Your task to perform on an android device: turn off smart reply in the gmail app Image 0: 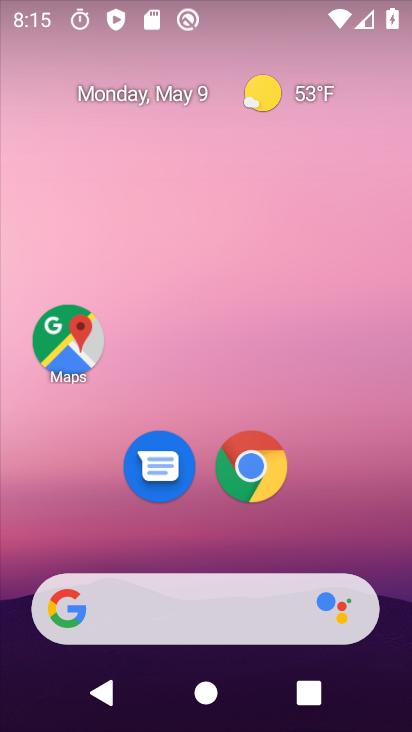
Step 0: drag from (308, 530) to (239, 69)
Your task to perform on an android device: turn off smart reply in the gmail app Image 1: 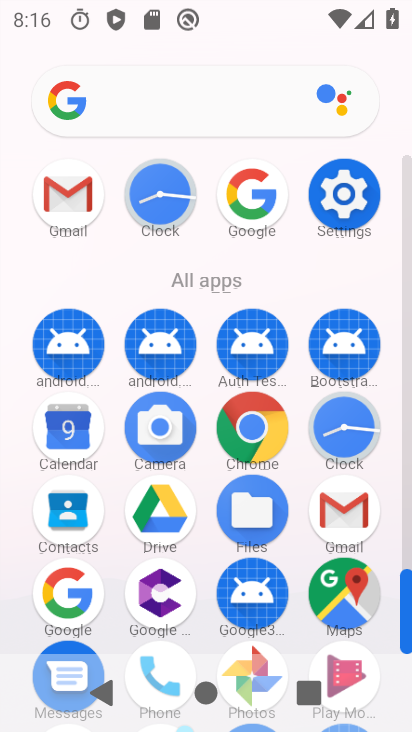
Step 1: click (67, 199)
Your task to perform on an android device: turn off smart reply in the gmail app Image 2: 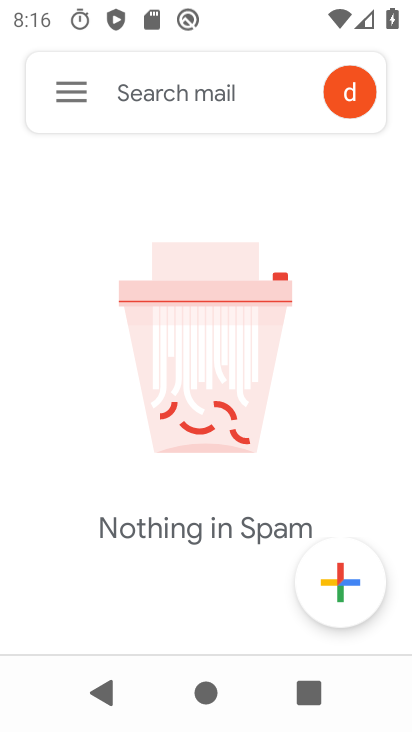
Step 2: click (85, 85)
Your task to perform on an android device: turn off smart reply in the gmail app Image 3: 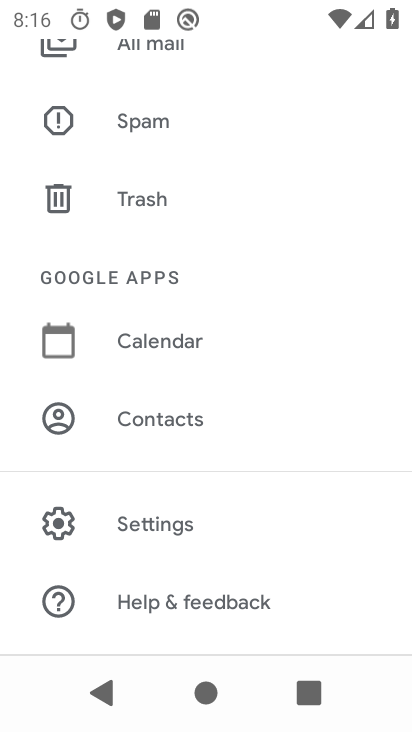
Step 3: click (190, 525)
Your task to perform on an android device: turn off smart reply in the gmail app Image 4: 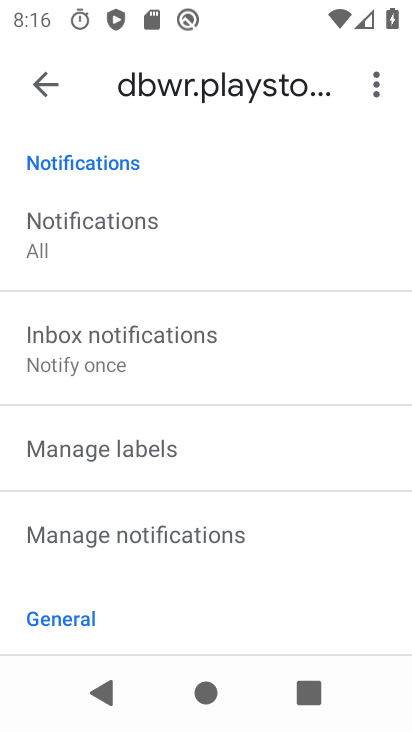
Step 4: drag from (149, 532) to (183, 447)
Your task to perform on an android device: turn off smart reply in the gmail app Image 5: 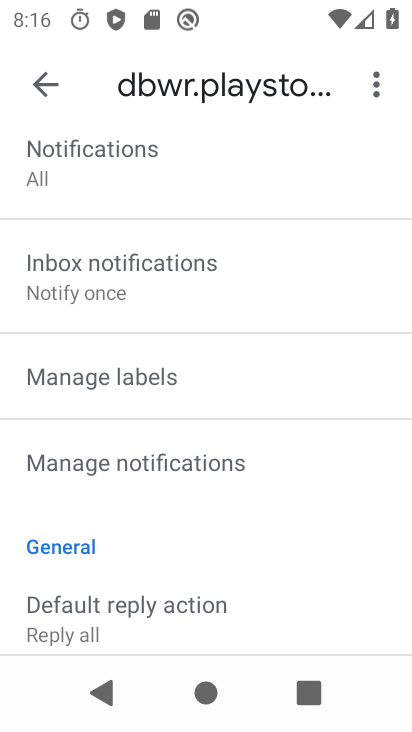
Step 5: drag from (138, 559) to (183, 418)
Your task to perform on an android device: turn off smart reply in the gmail app Image 6: 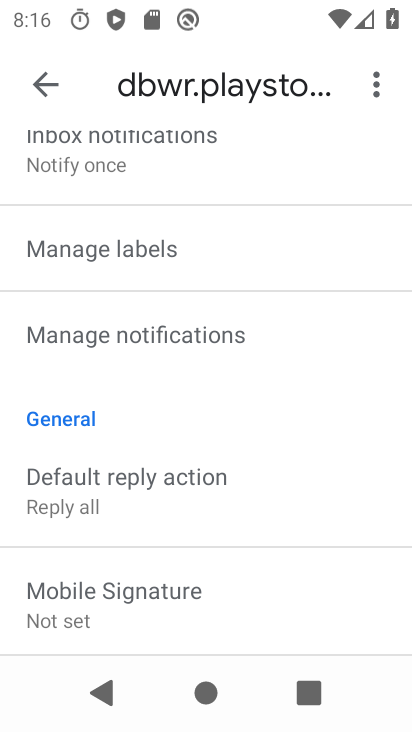
Step 6: drag from (146, 549) to (243, 413)
Your task to perform on an android device: turn off smart reply in the gmail app Image 7: 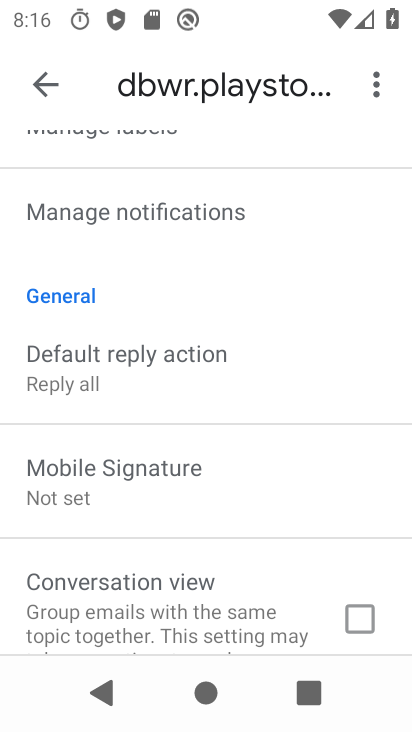
Step 7: drag from (134, 550) to (246, 386)
Your task to perform on an android device: turn off smart reply in the gmail app Image 8: 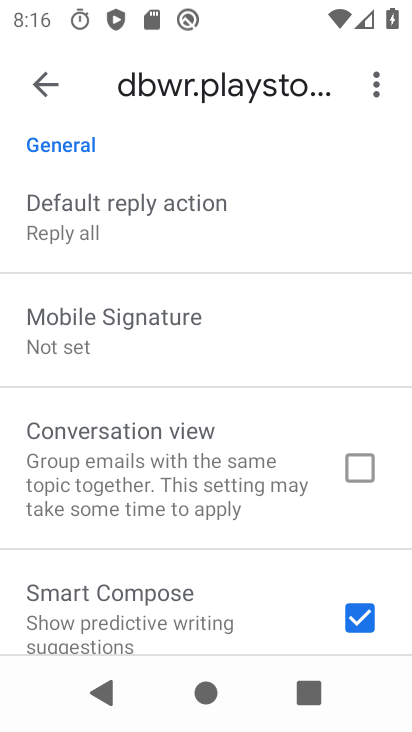
Step 8: drag from (192, 572) to (296, 326)
Your task to perform on an android device: turn off smart reply in the gmail app Image 9: 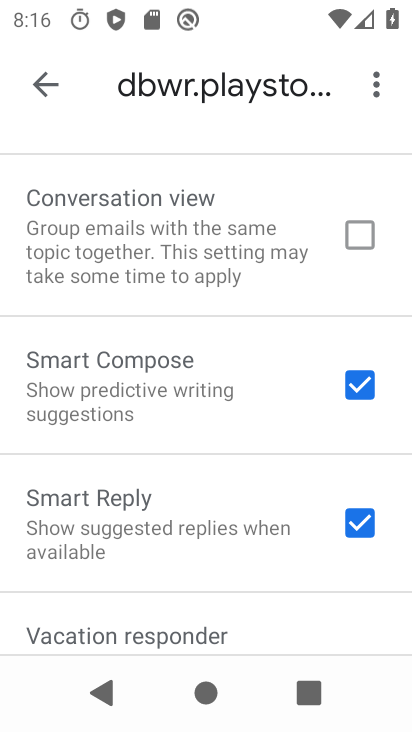
Step 9: drag from (223, 523) to (258, 471)
Your task to perform on an android device: turn off smart reply in the gmail app Image 10: 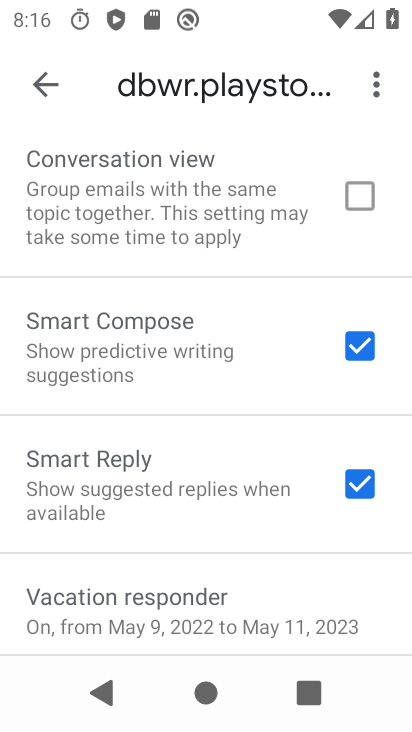
Step 10: click (364, 482)
Your task to perform on an android device: turn off smart reply in the gmail app Image 11: 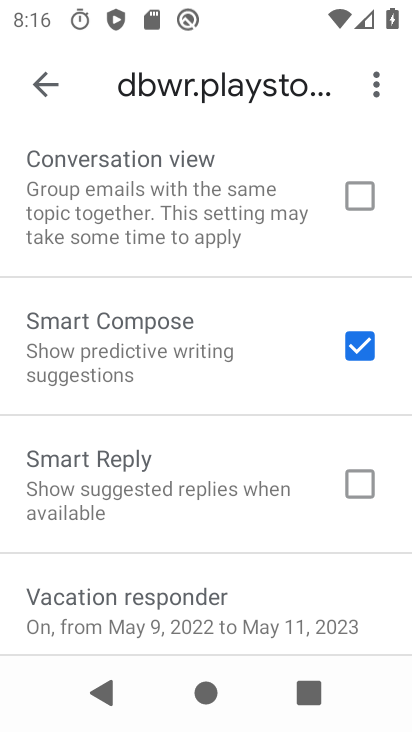
Step 11: task complete